Your task to perform on an android device: Open location settings Image 0: 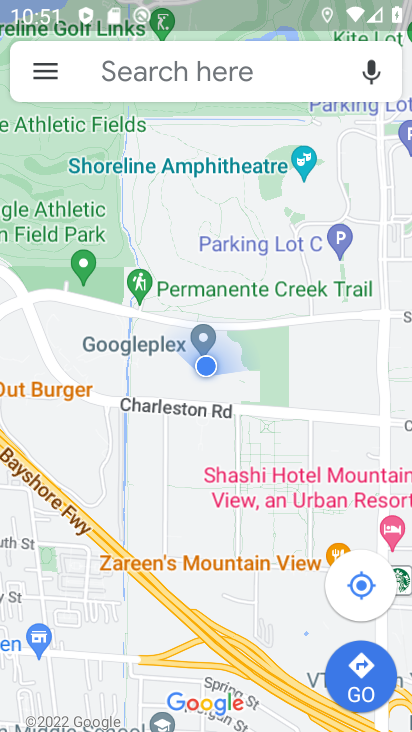
Step 0: press home button
Your task to perform on an android device: Open location settings Image 1: 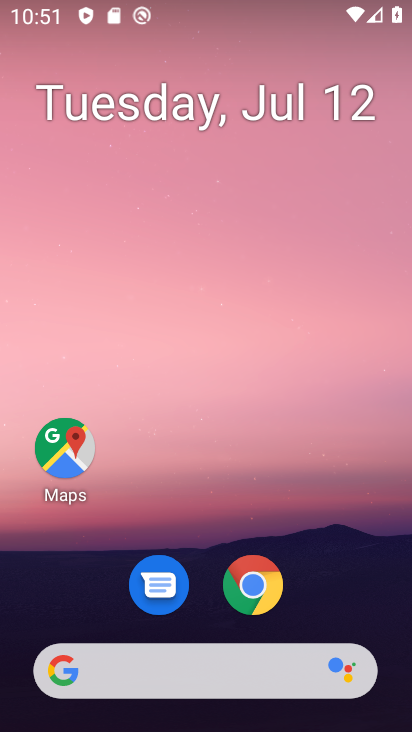
Step 1: drag from (332, 577) to (318, 23)
Your task to perform on an android device: Open location settings Image 2: 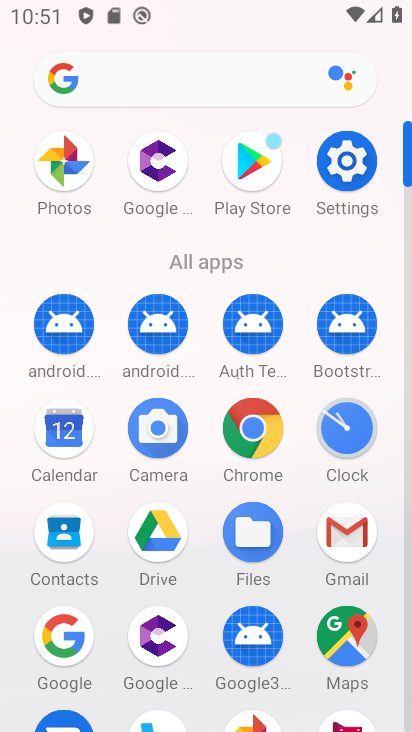
Step 2: click (356, 147)
Your task to perform on an android device: Open location settings Image 3: 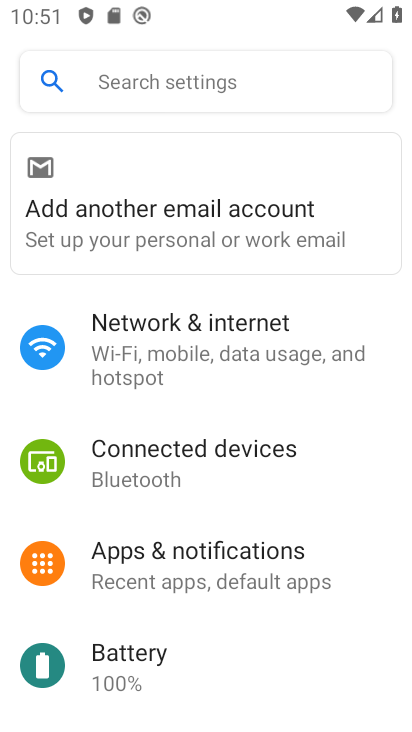
Step 3: drag from (224, 634) to (233, 24)
Your task to perform on an android device: Open location settings Image 4: 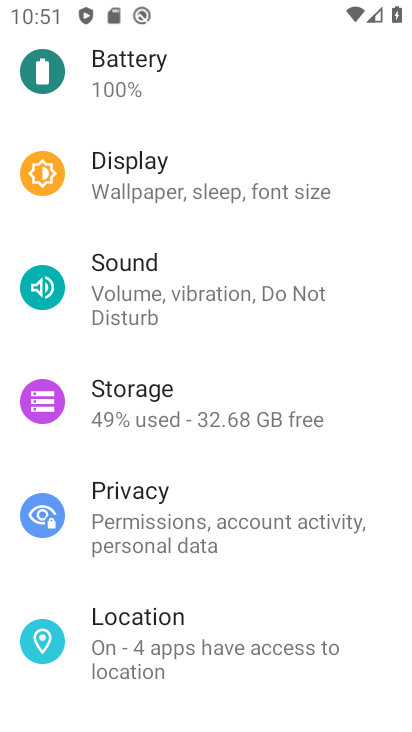
Step 4: click (244, 648)
Your task to perform on an android device: Open location settings Image 5: 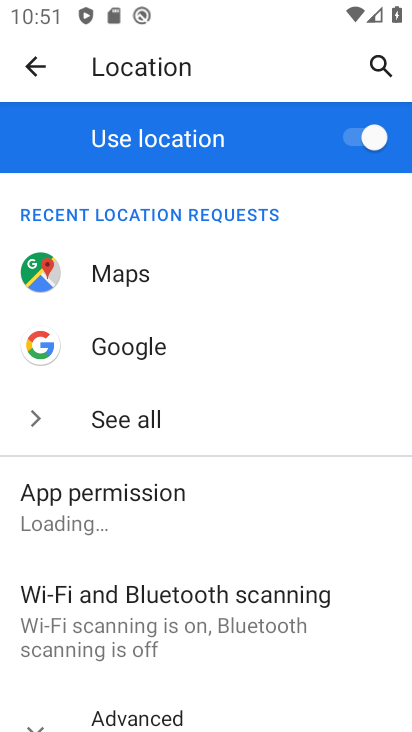
Step 5: task complete